Your task to perform on an android device: Go to battery settings Image 0: 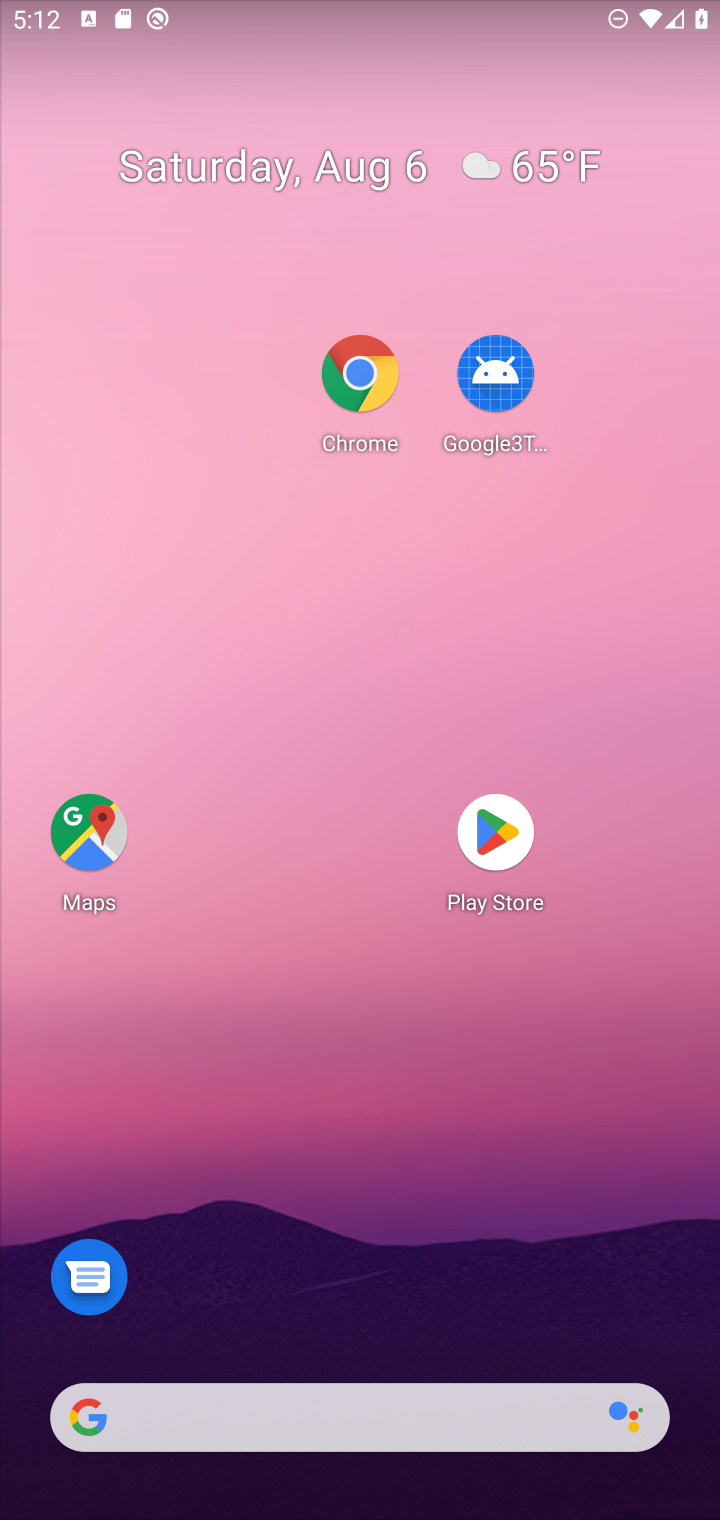
Step 0: drag from (492, 1412) to (599, 13)
Your task to perform on an android device: Go to battery settings Image 1: 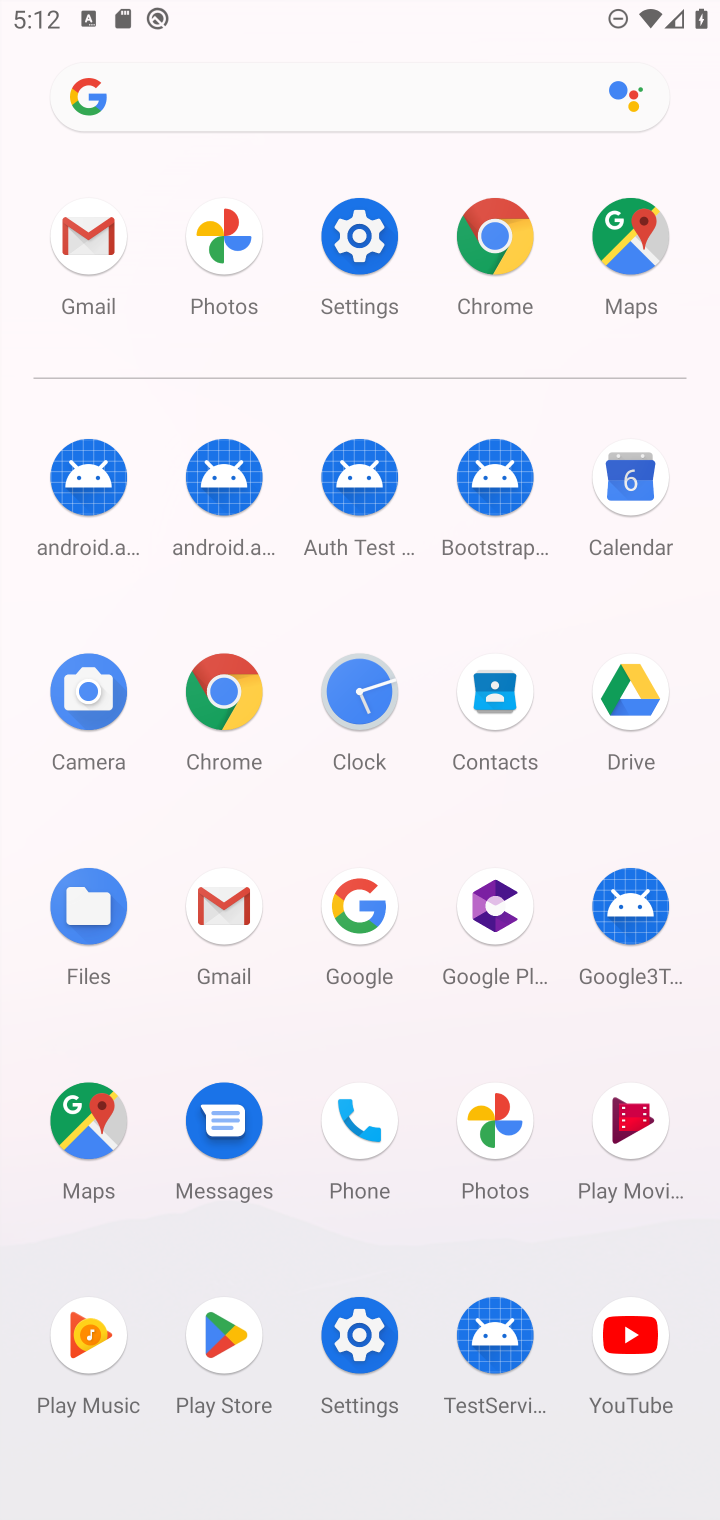
Step 1: click (352, 238)
Your task to perform on an android device: Go to battery settings Image 2: 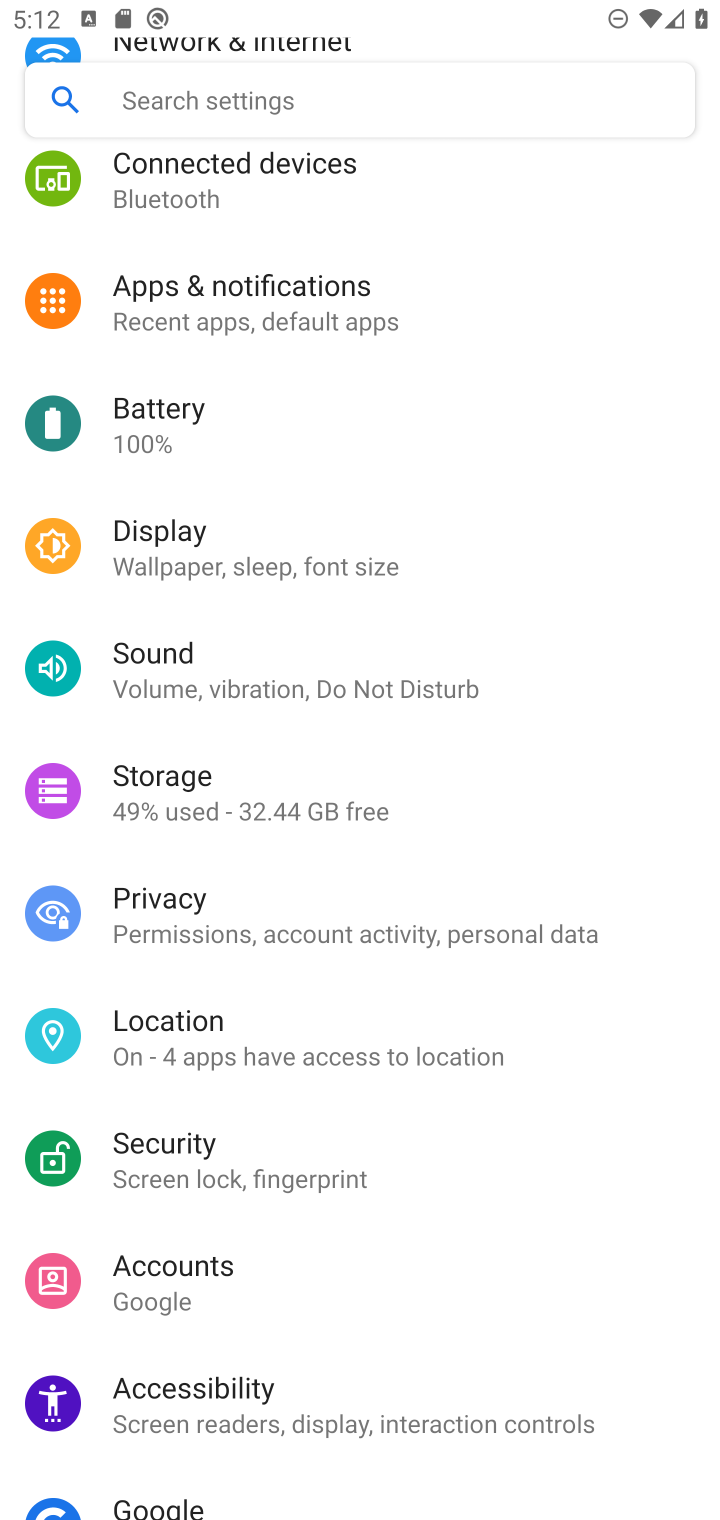
Step 2: click (191, 412)
Your task to perform on an android device: Go to battery settings Image 3: 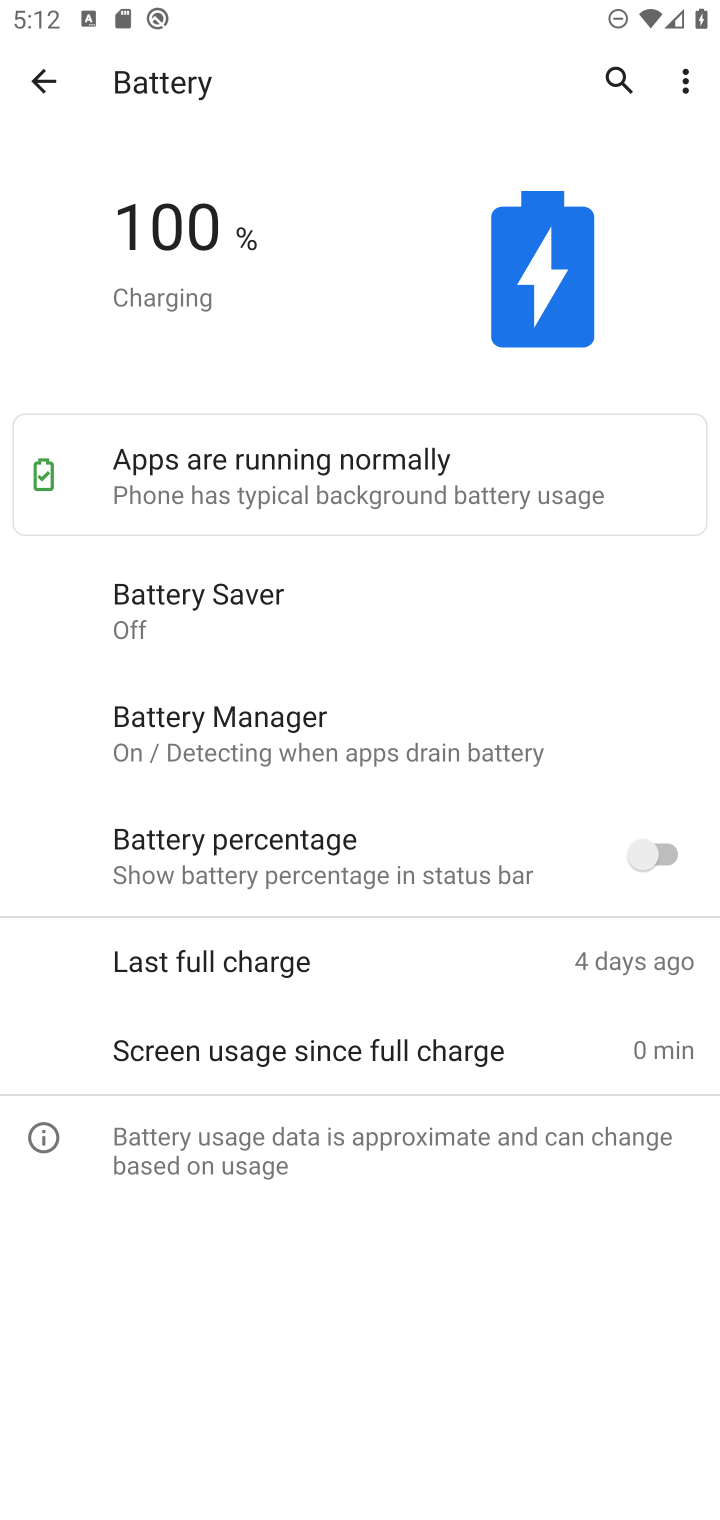
Step 3: task complete